Your task to perform on an android device: Toggle the flashlight Image 0: 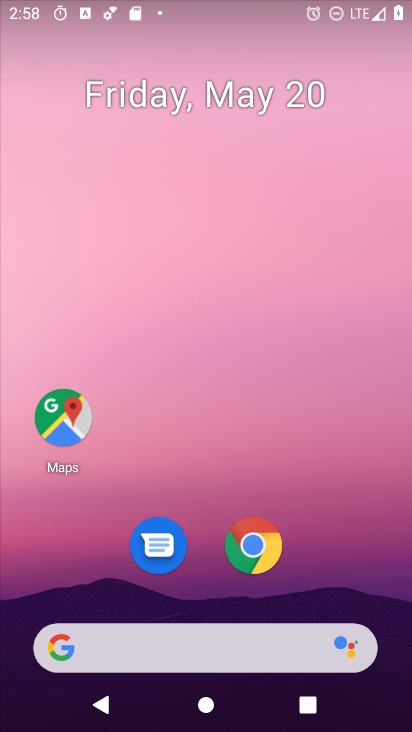
Step 0: drag from (321, 595) to (273, 3)
Your task to perform on an android device: Toggle the flashlight Image 1: 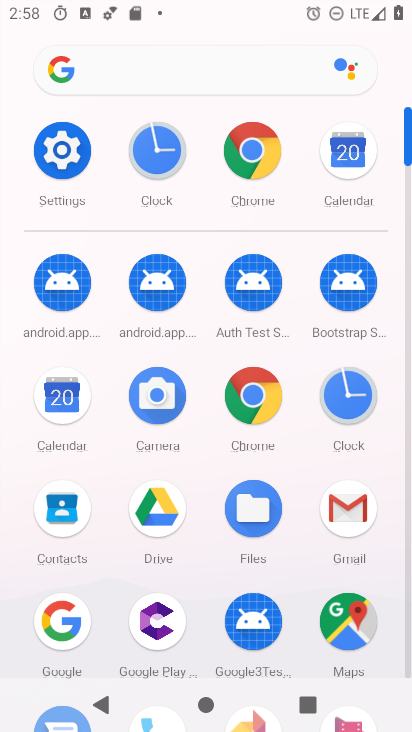
Step 1: click (72, 142)
Your task to perform on an android device: Toggle the flashlight Image 2: 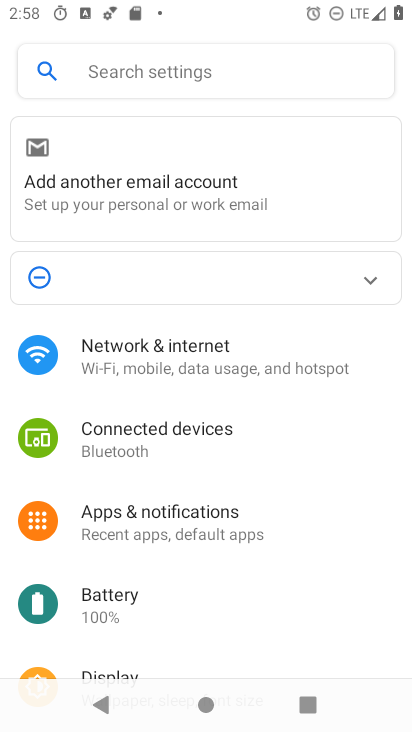
Step 2: task complete